Your task to perform on an android device: Search for sushi restaurants on Maps Image 0: 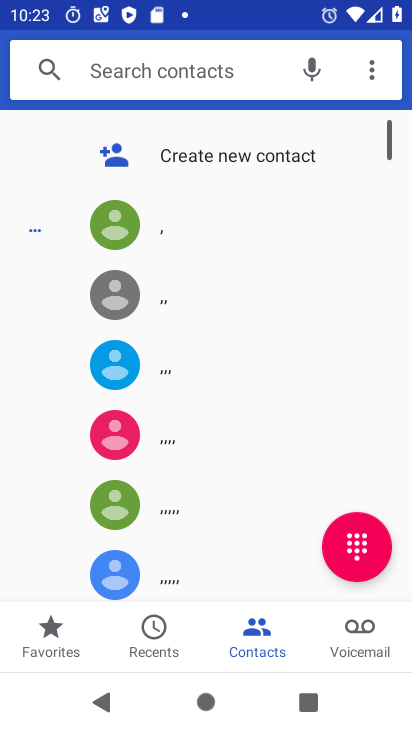
Step 0: press home button
Your task to perform on an android device: Search for sushi restaurants on Maps Image 1: 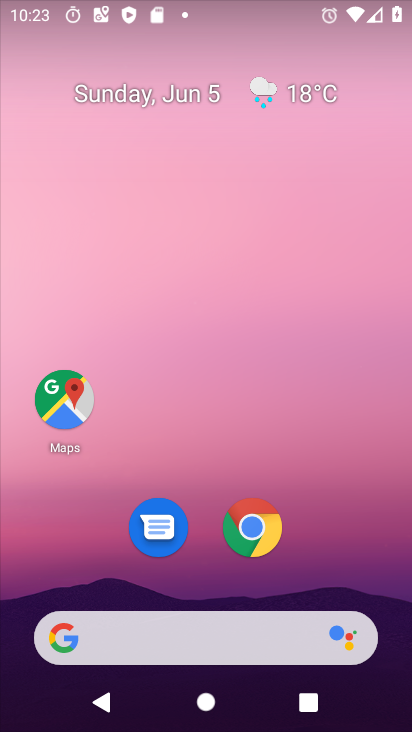
Step 1: drag from (306, 432) to (224, 18)
Your task to perform on an android device: Search for sushi restaurants on Maps Image 2: 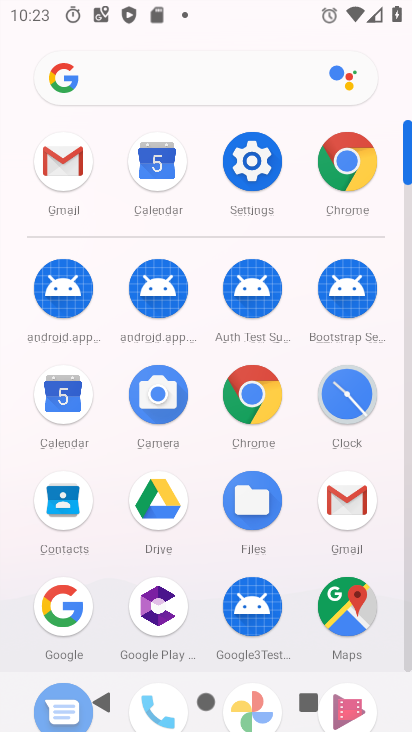
Step 2: click (352, 600)
Your task to perform on an android device: Search for sushi restaurants on Maps Image 3: 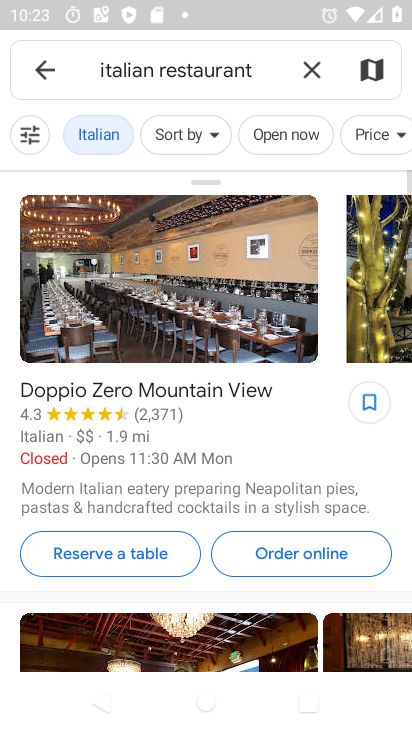
Step 3: click (308, 74)
Your task to perform on an android device: Search for sushi restaurants on Maps Image 4: 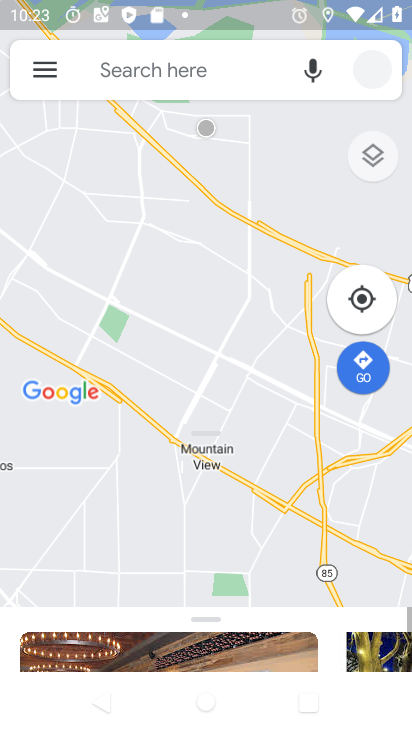
Step 4: click (153, 81)
Your task to perform on an android device: Search for sushi restaurants on Maps Image 5: 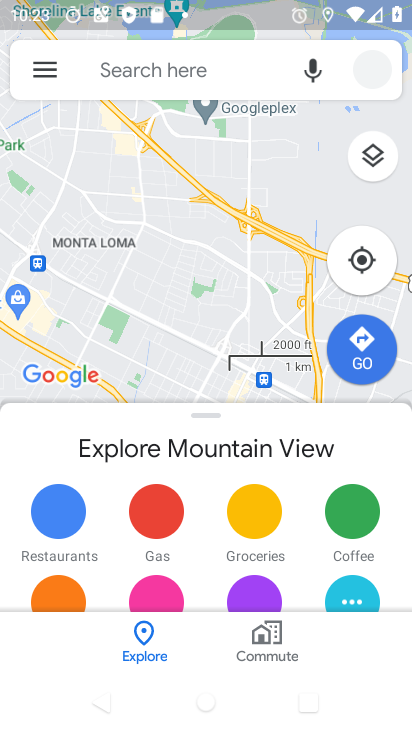
Step 5: click (173, 50)
Your task to perform on an android device: Search for sushi restaurants on Maps Image 6: 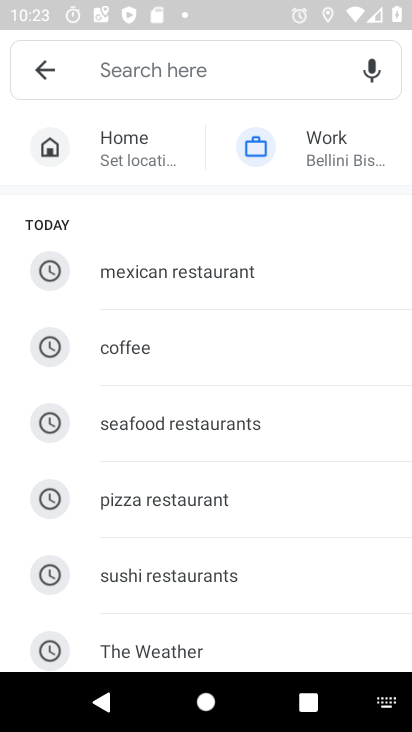
Step 6: click (234, 578)
Your task to perform on an android device: Search for sushi restaurants on Maps Image 7: 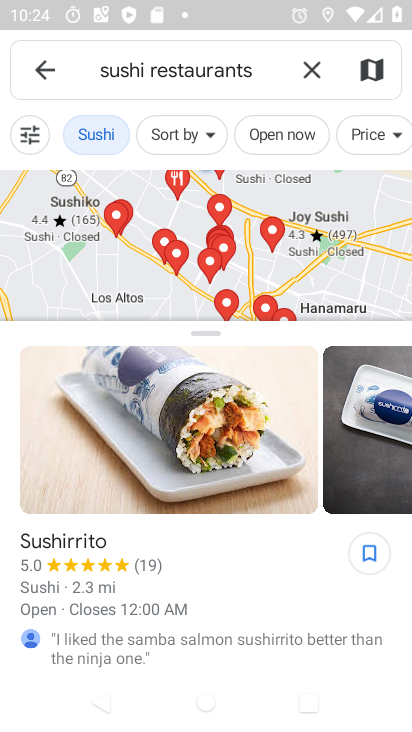
Step 7: task complete